Your task to perform on an android device: Open location settings Image 0: 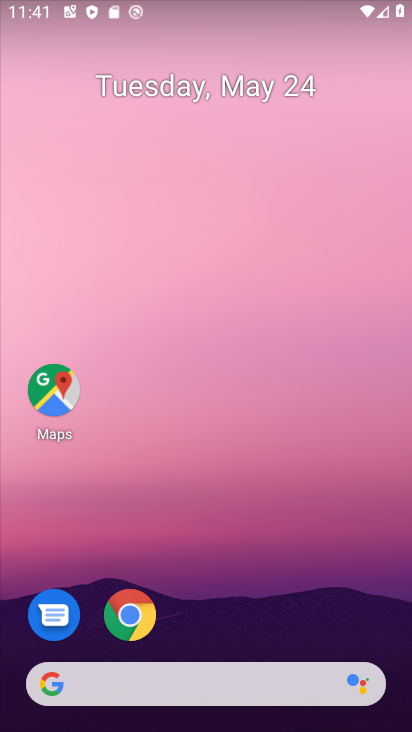
Step 0: drag from (236, 425) to (254, 47)
Your task to perform on an android device: Open location settings Image 1: 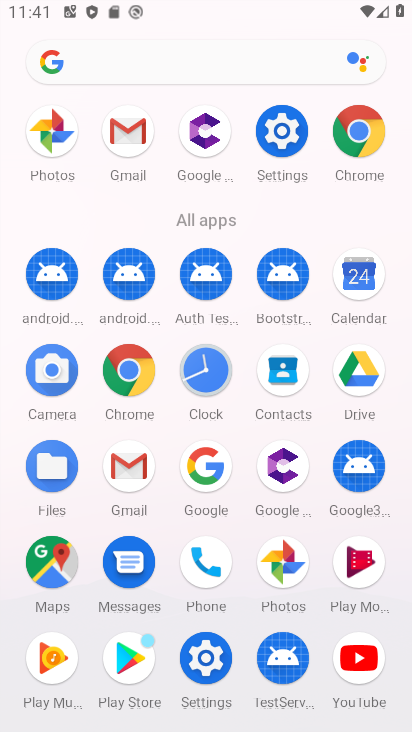
Step 1: click (284, 129)
Your task to perform on an android device: Open location settings Image 2: 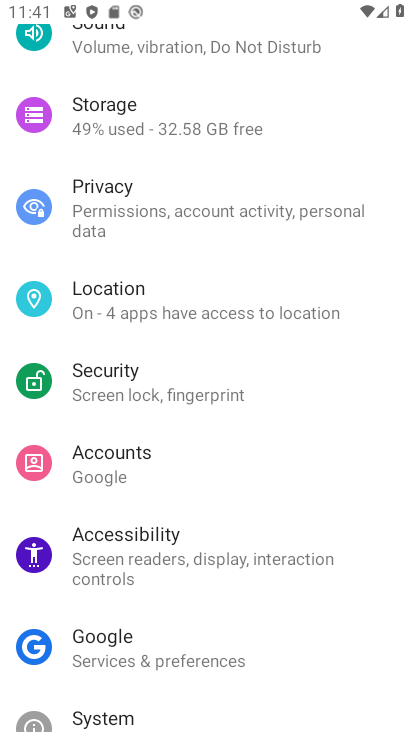
Step 2: click (192, 298)
Your task to perform on an android device: Open location settings Image 3: 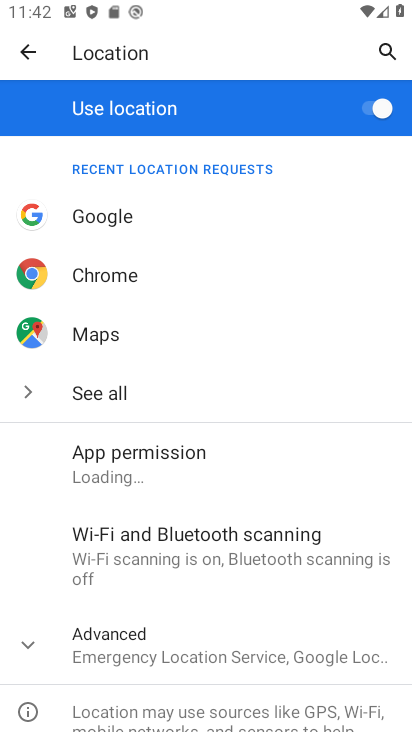
Step 3: task complete